Your task to perform on an android device: stop showing notifications on the lock screen Image 0: 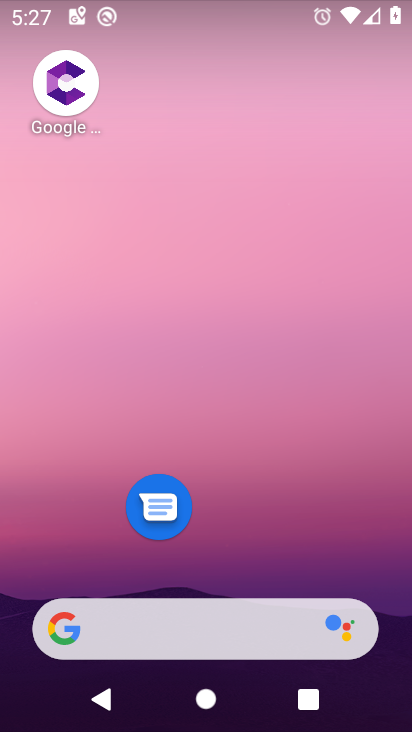
Step 0: drag from (332, 569) to (289, 0)
Your task to perform on an android device: stop showing notifications on the lock screen Image 1: 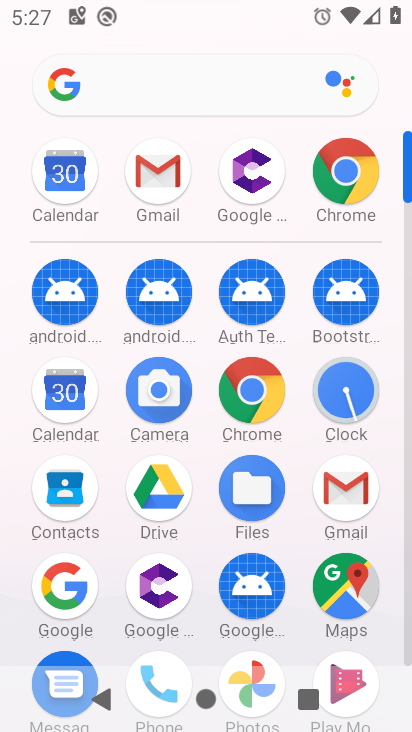
Step 1: click (406, 654)
Your task to perform on an android device: stop showing notifications on the lock screen Image 2: 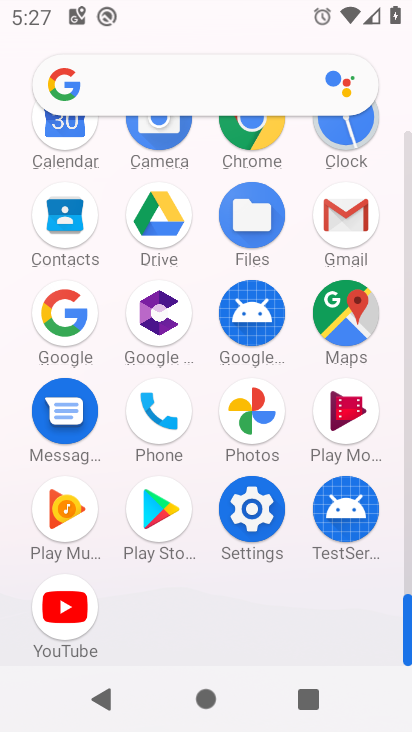
Step 2: click (257, 521)
Your task to perform on an android device: stop showing notifications on the lock screen Image 3: 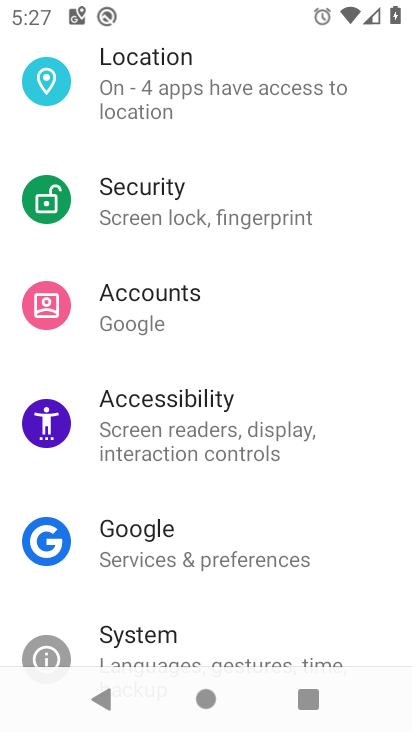
Step 3: drag from (214, 145) to (221, 677)
Your task to perform on an android device: stop showing notifications on the lock screen Image 4: 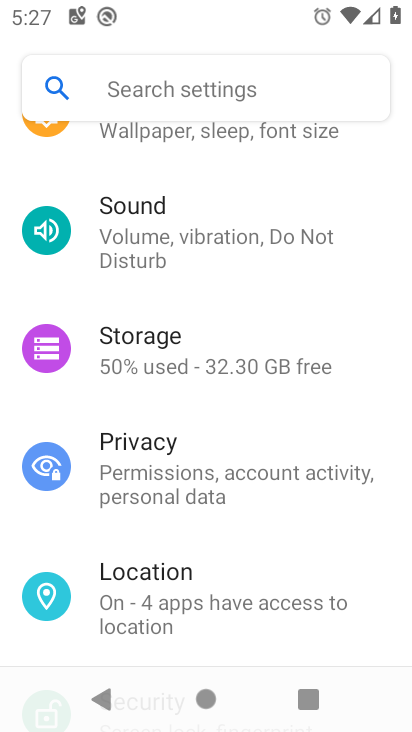
Step 4: drag from (178, 297) to (203, 725)
Your task to perform on an android device: stop showing notifications on the lock screen Image 5: 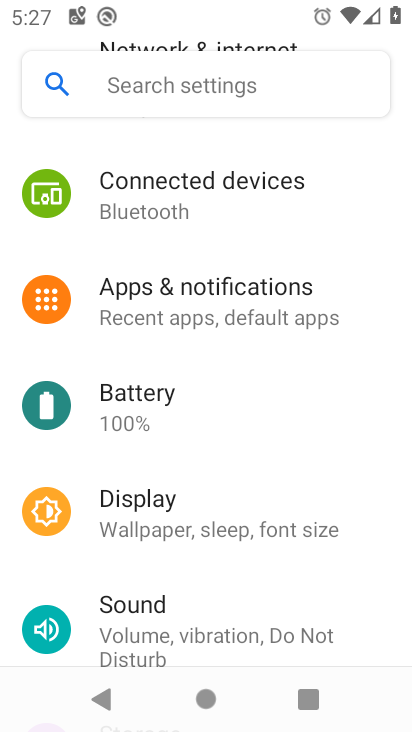
Step 5: click (169, 327)
Your task to perform on an android device: stop showing notifications on the lock screen Image 6: 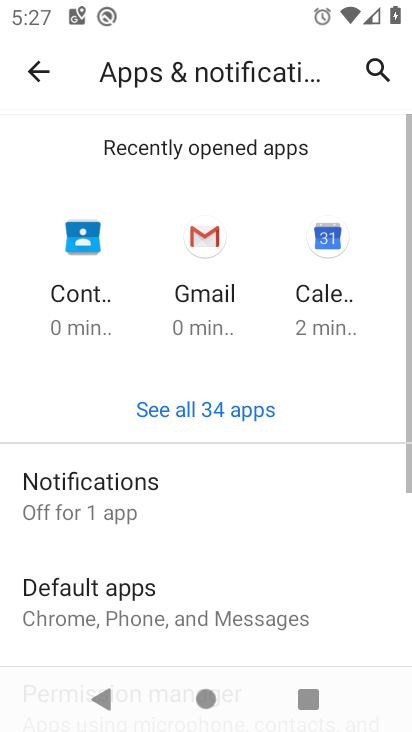
Step 6: click (123, 507)
Your task to perform on an android device: stop showing notifications on the lock screen Image 7: 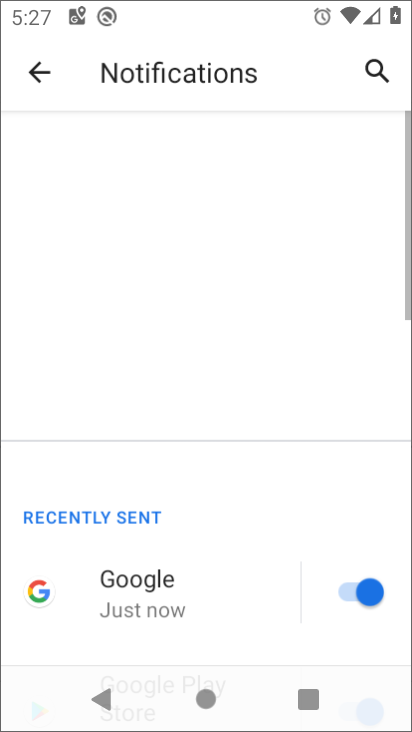
Step 7: drag from (216, 580) to (161, 60)
Your task to perform on an android device: stop showing notifications on the lock screen Image 8: 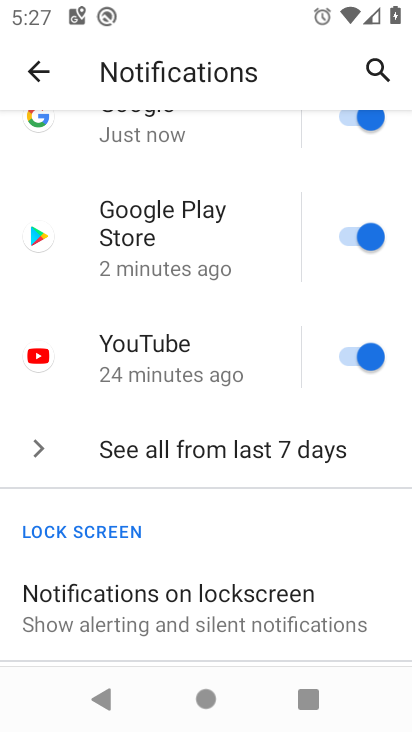
Step 8: drag from (234, 541) to (194, 129)
Your task to perform on an android device: stop showing notifications on the lock screen Image 9: 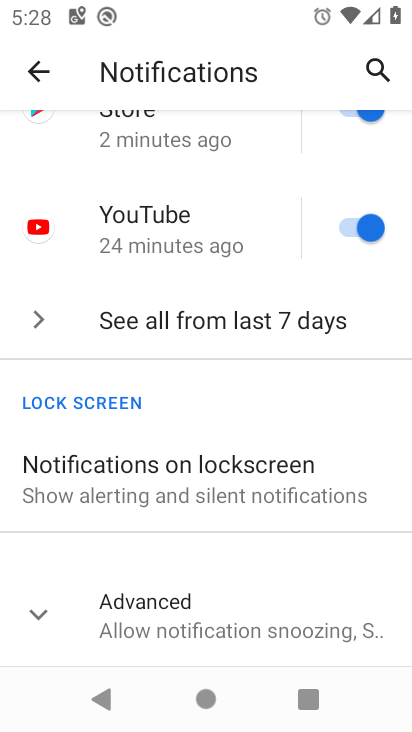
Step 9: click (223, 472)
Your task to perform on an android device: stop showing notifications on the lock screen Image 10: 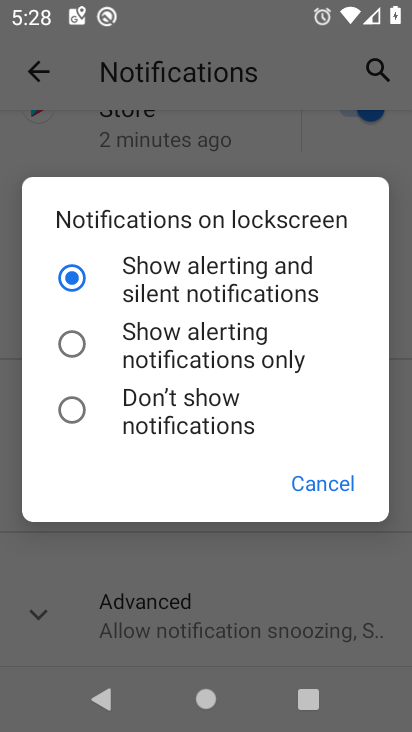
Step 10: click (170, 409)
Your task to perform on an android device: stop showing notifications on the lock screen Image 11: 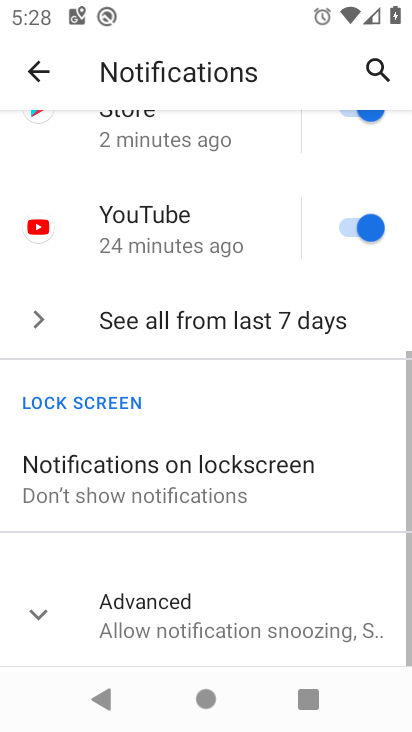
Step 11: task complete